Your task to perform on an android device: Search for a new eyeliner Image 0: 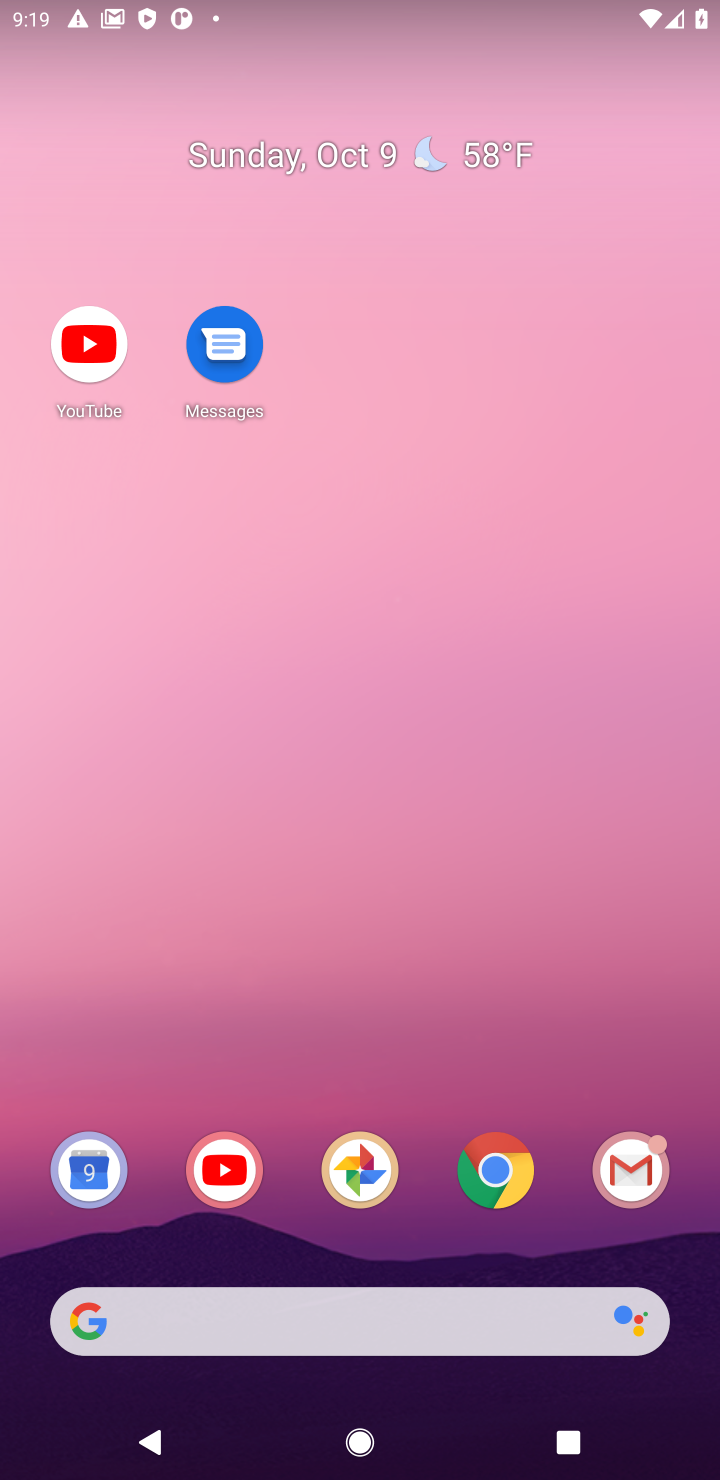
Step 0: drag from (337, 875) to (271, 264)
Your task to perform on an android device: Search for a new eyeliner Image 1: 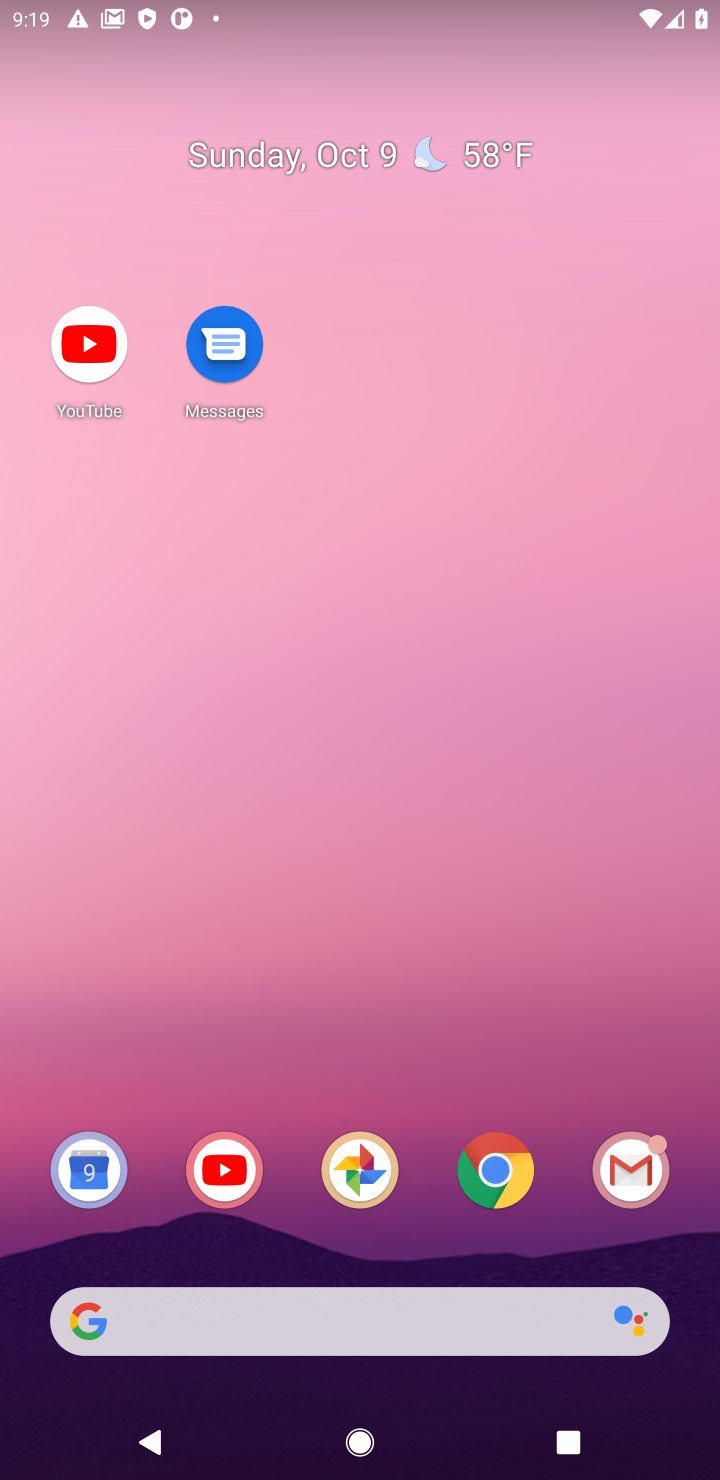
Step 1: drag from (371, 1221) to (233, 35)
Your task to perform on an android device: Search for a new eyeliner Image 2: 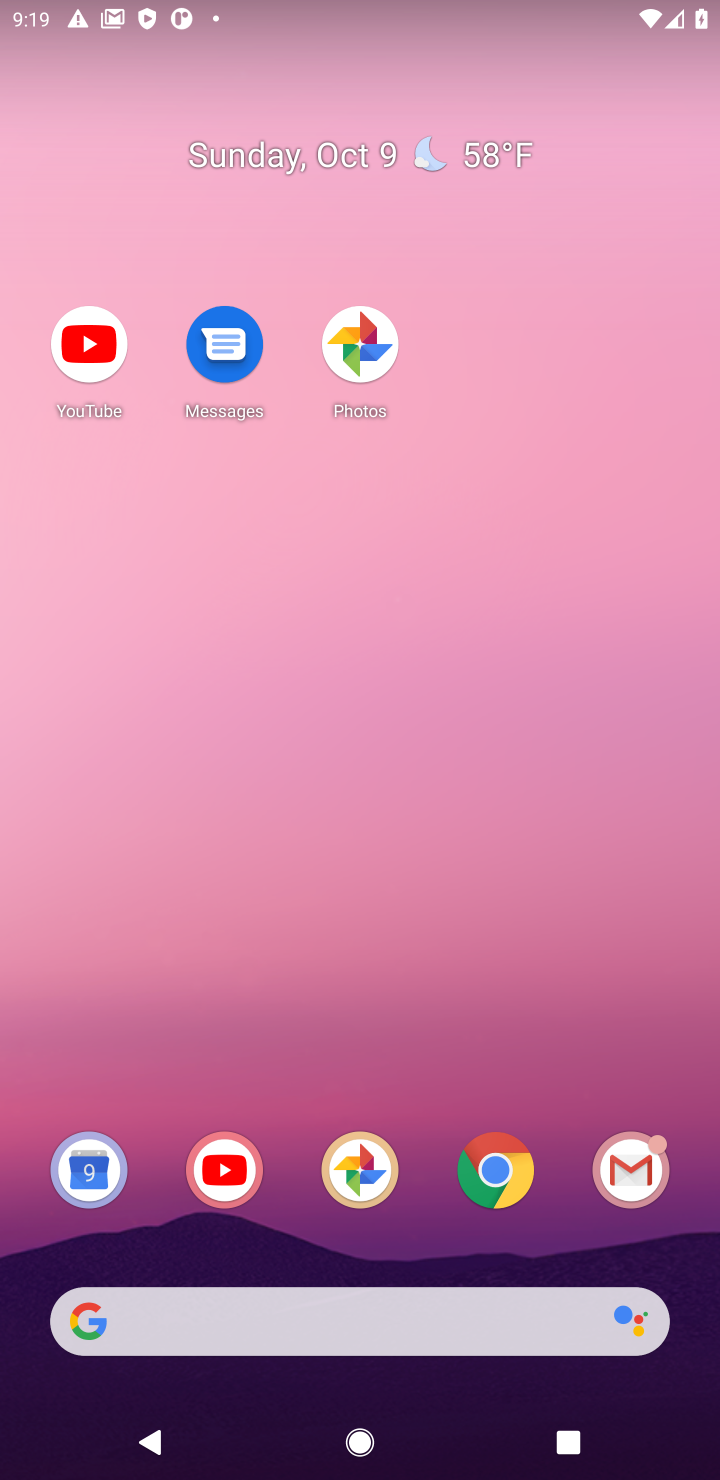
Step 2: click (390, 1243)
Your task to perform on an android device: Search for a new eyeliner Image 3: 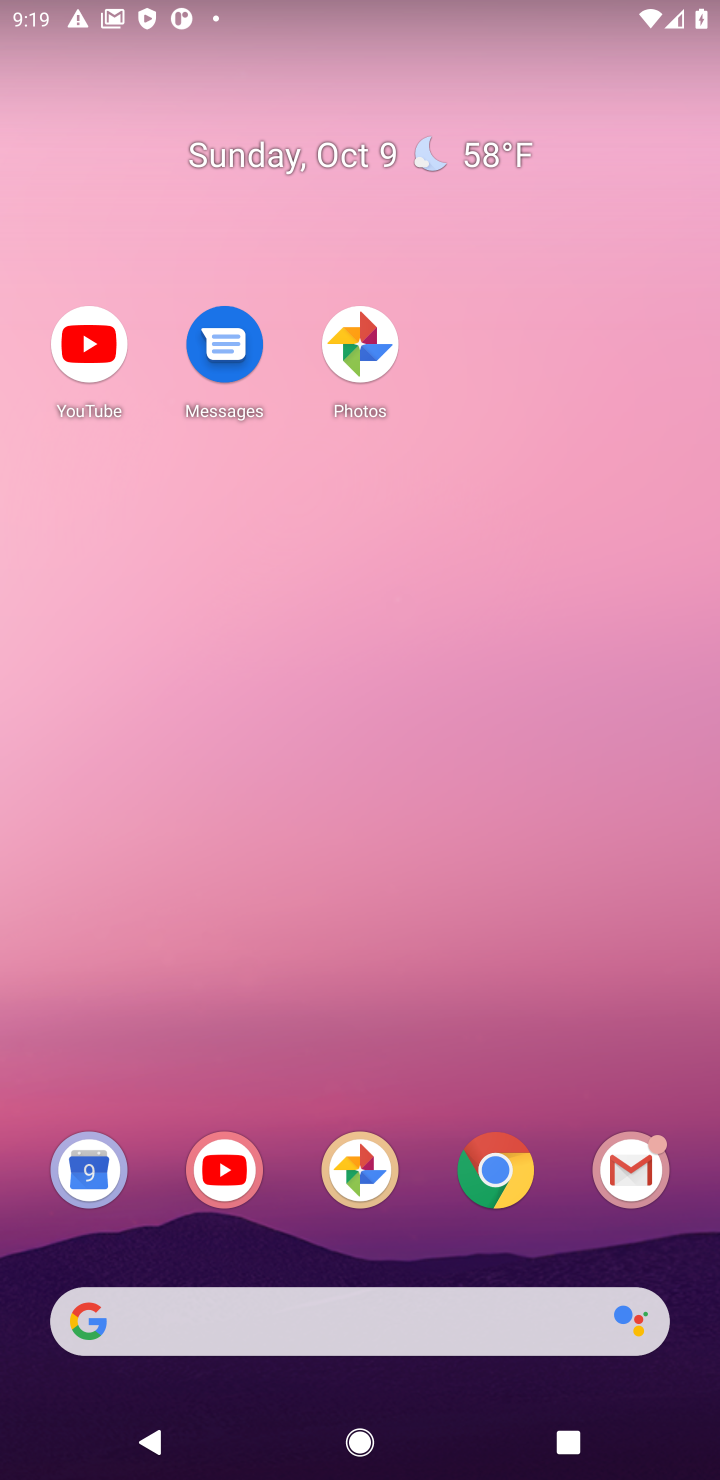
Step 3: drag from (388, 1218) to (230, 717)
Your task to perform on an android device: Search for a new eyeliner Image 4: 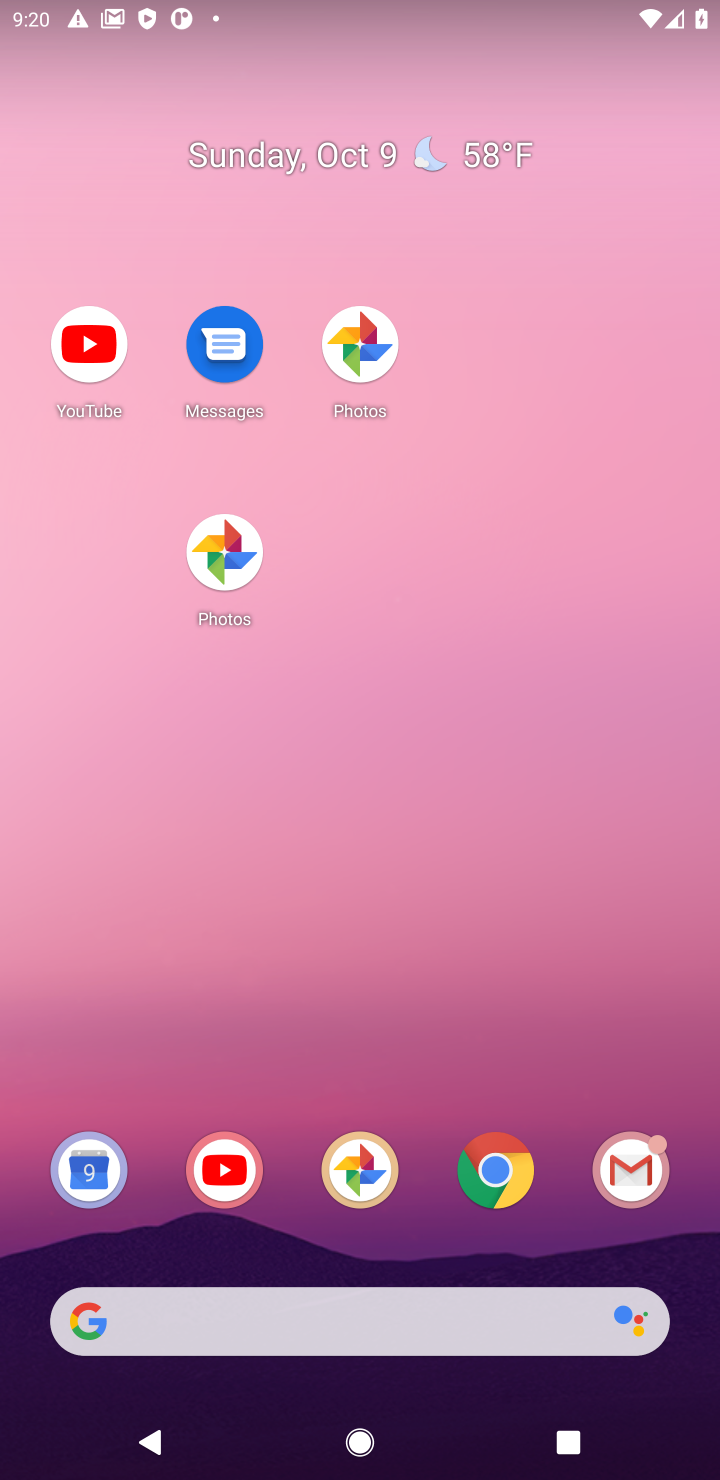
Step 4: click (230, 717)
Your task to perform on an android device: Search for a new eyeliner Image 5: 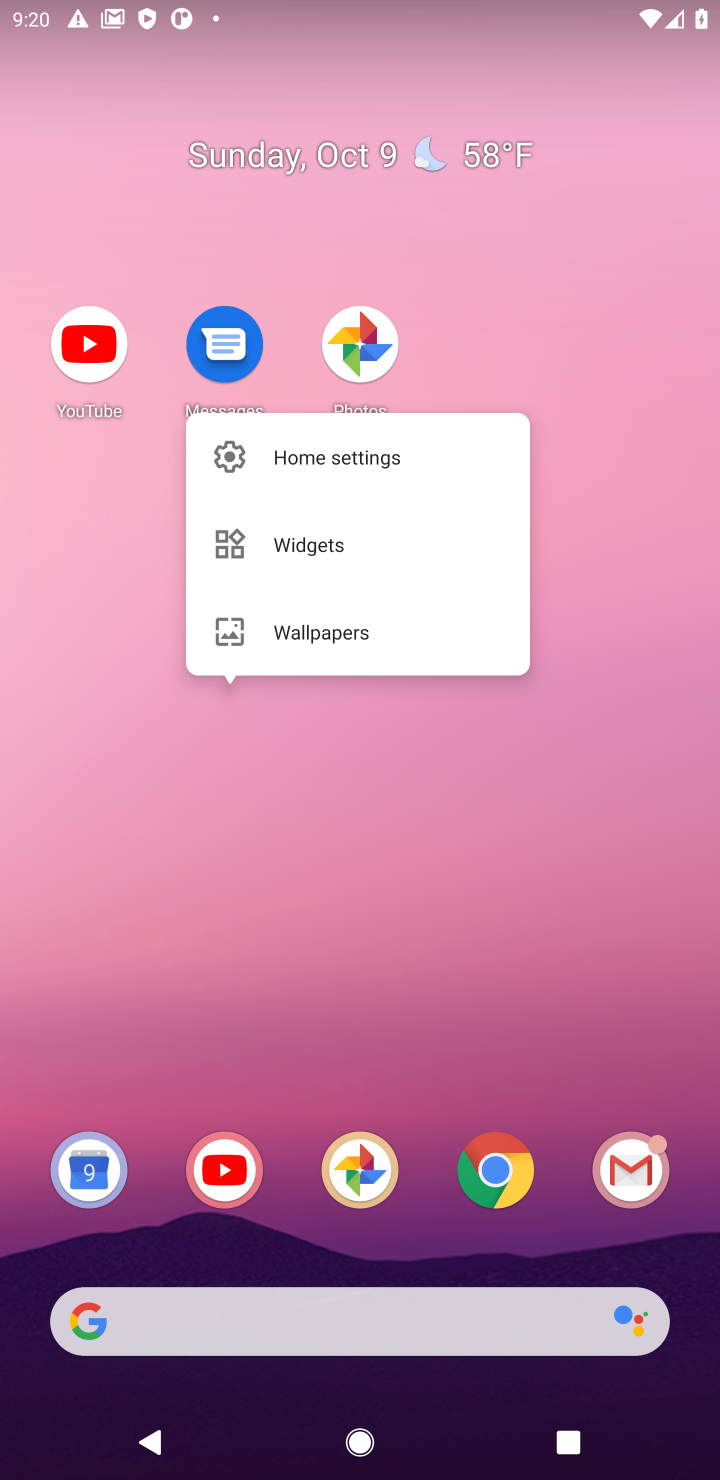
Step 5: click (274, 821)
Your task to perform on an android device: Search for a new eyeliner Image 6: 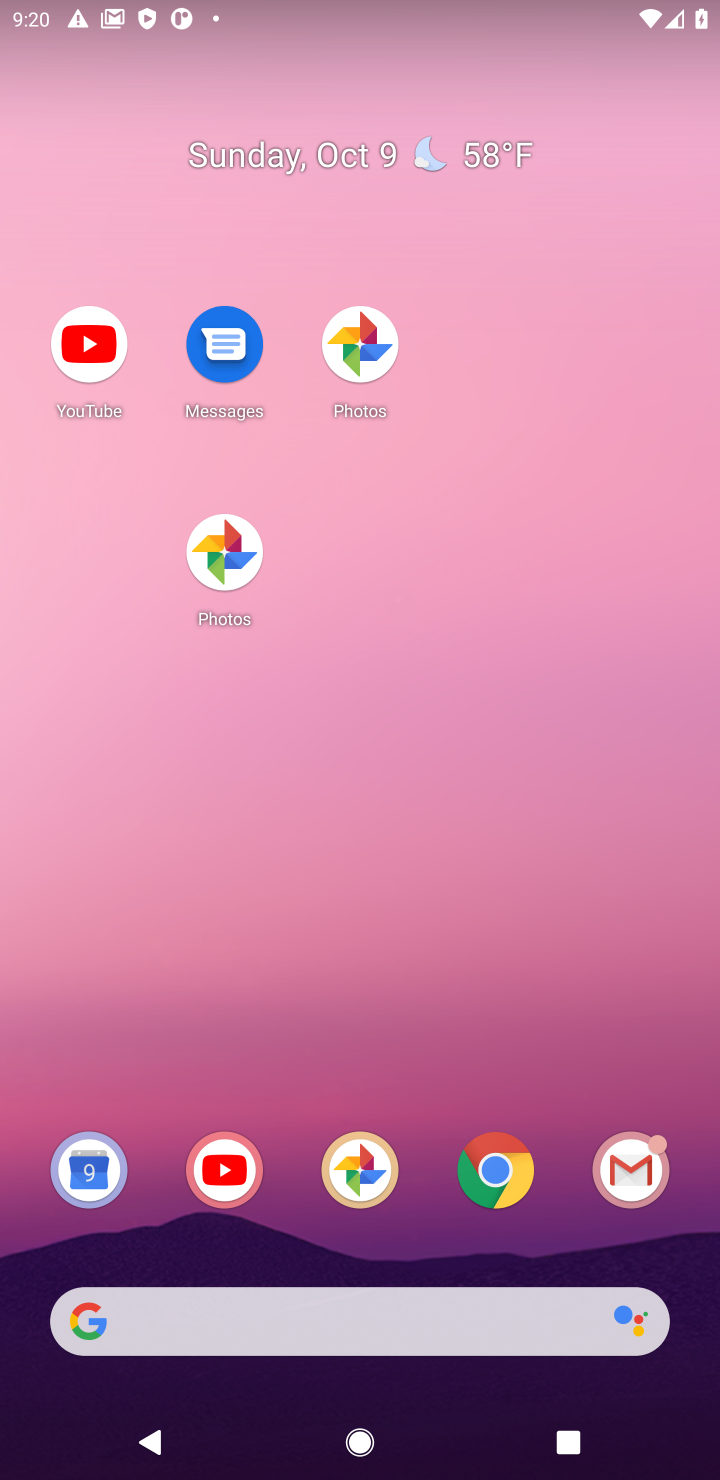
Step 6: click (401, 967)
Your task to perform on an android device: Search for a new eyeliner Image 7: 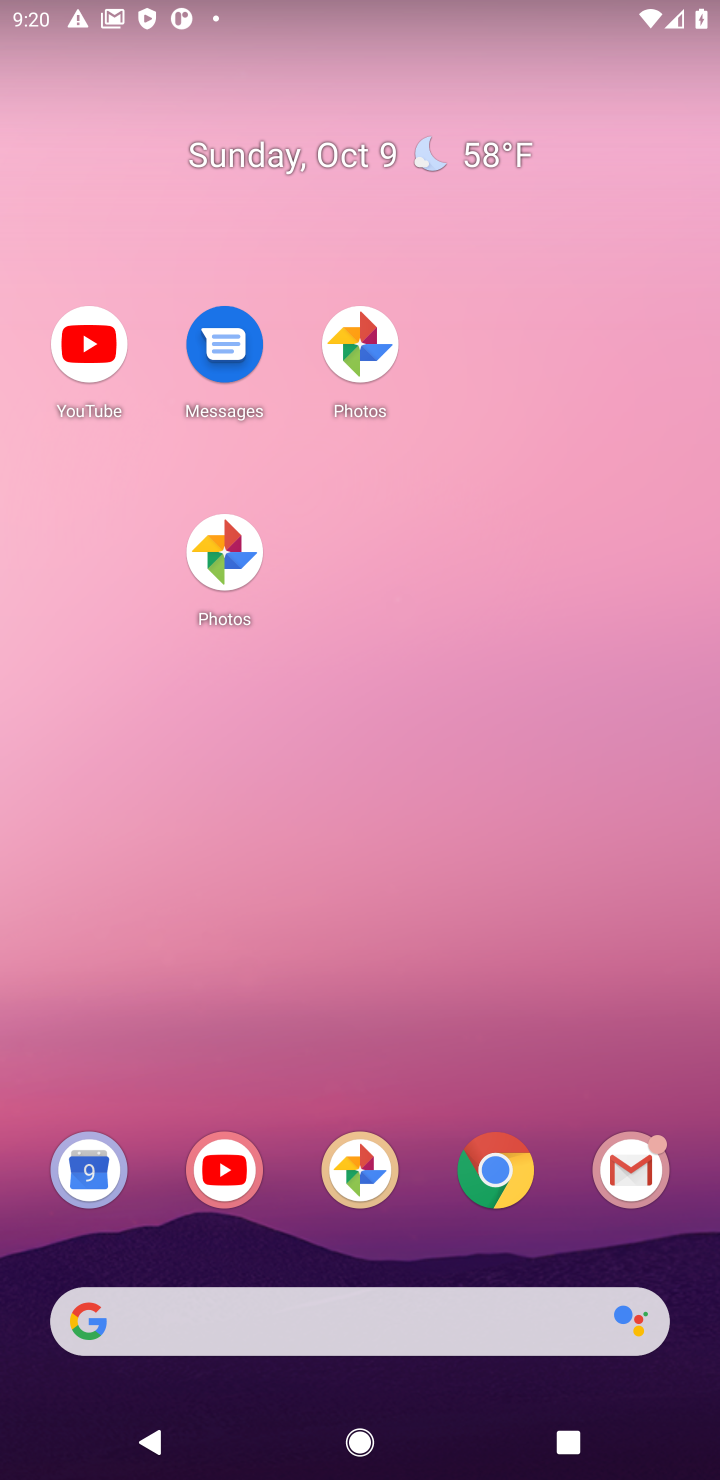
Step 7: click (312, 1319)
Your task to perform on an android device: Search for a new eyeliner Image 8: 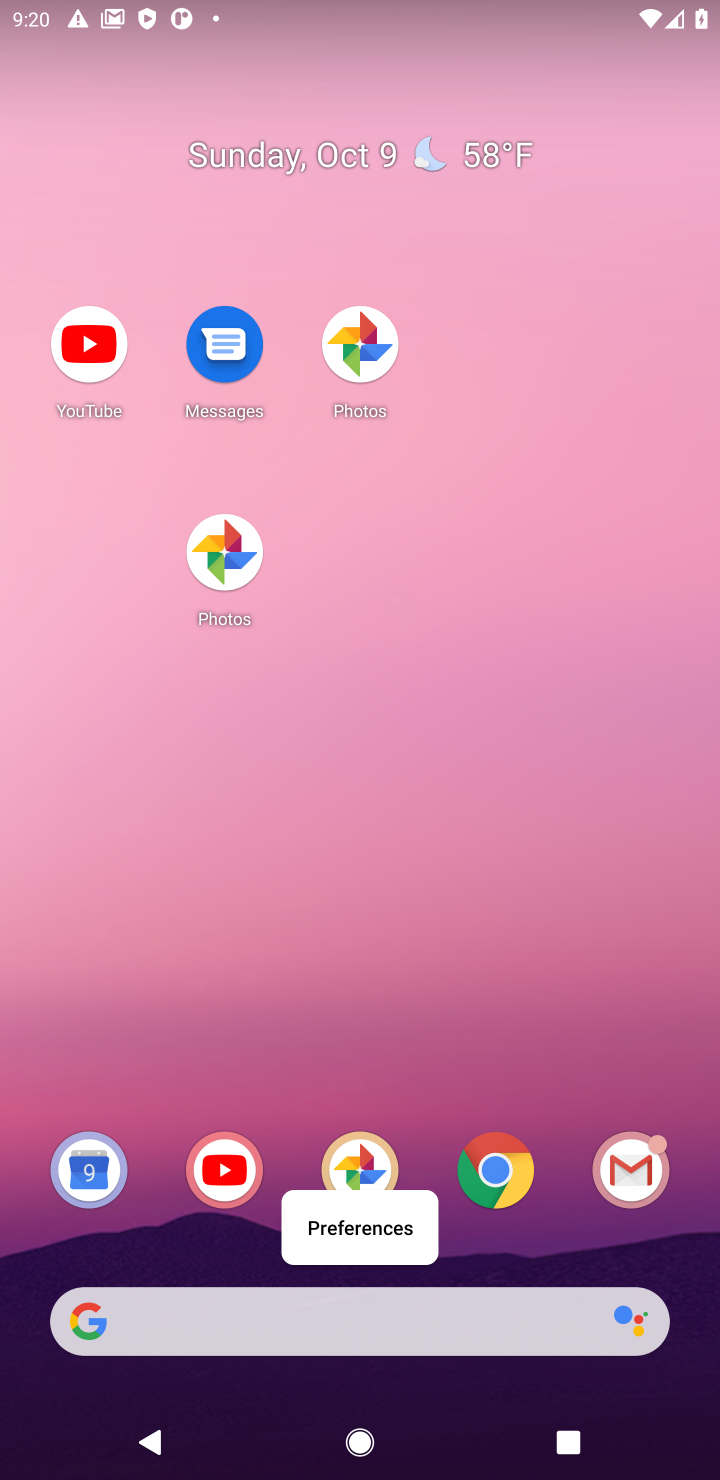
Step 8: click (312, 1319)
Your task to perform on an android device: Search for a new eyeliner Image 9: 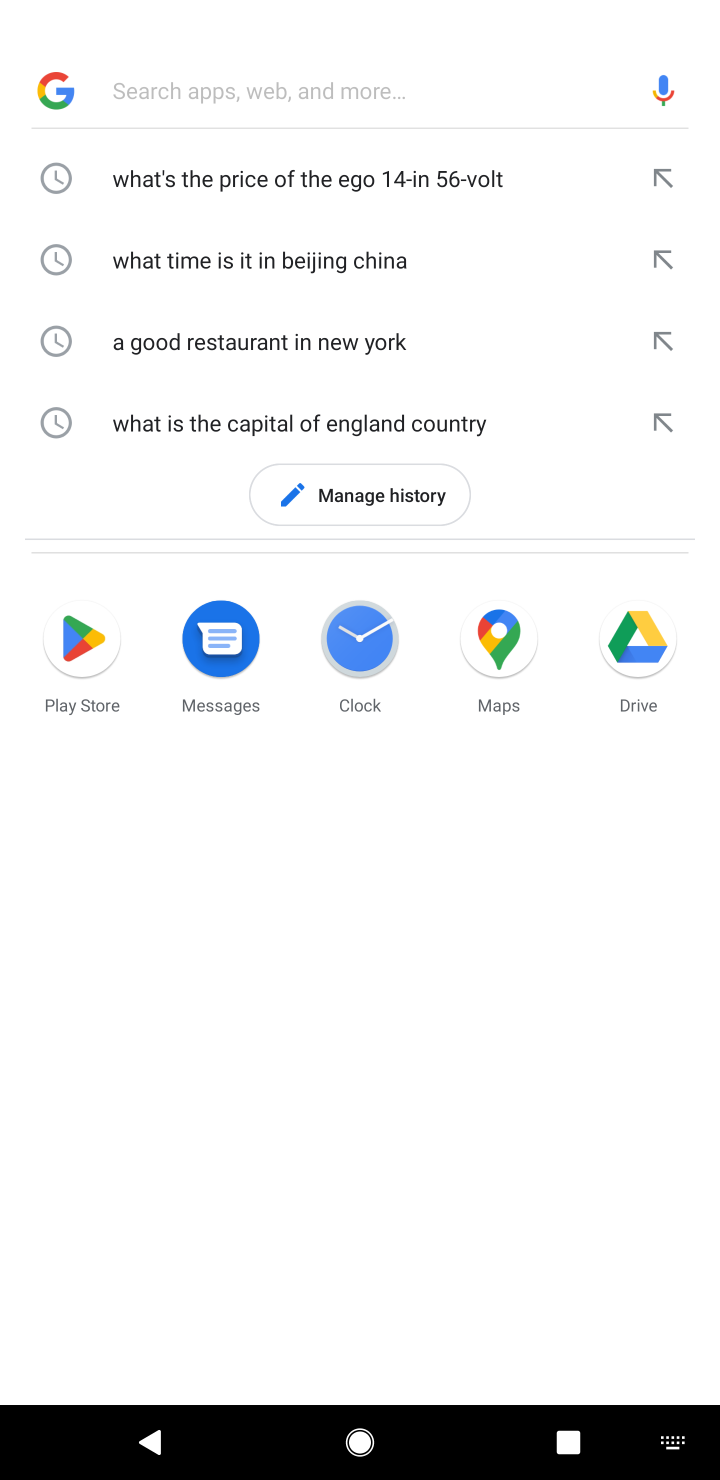
Step 9: type "Search for a new eyeliner"
Your task to perform on an android device: Search for a new eyeliner Image 10: 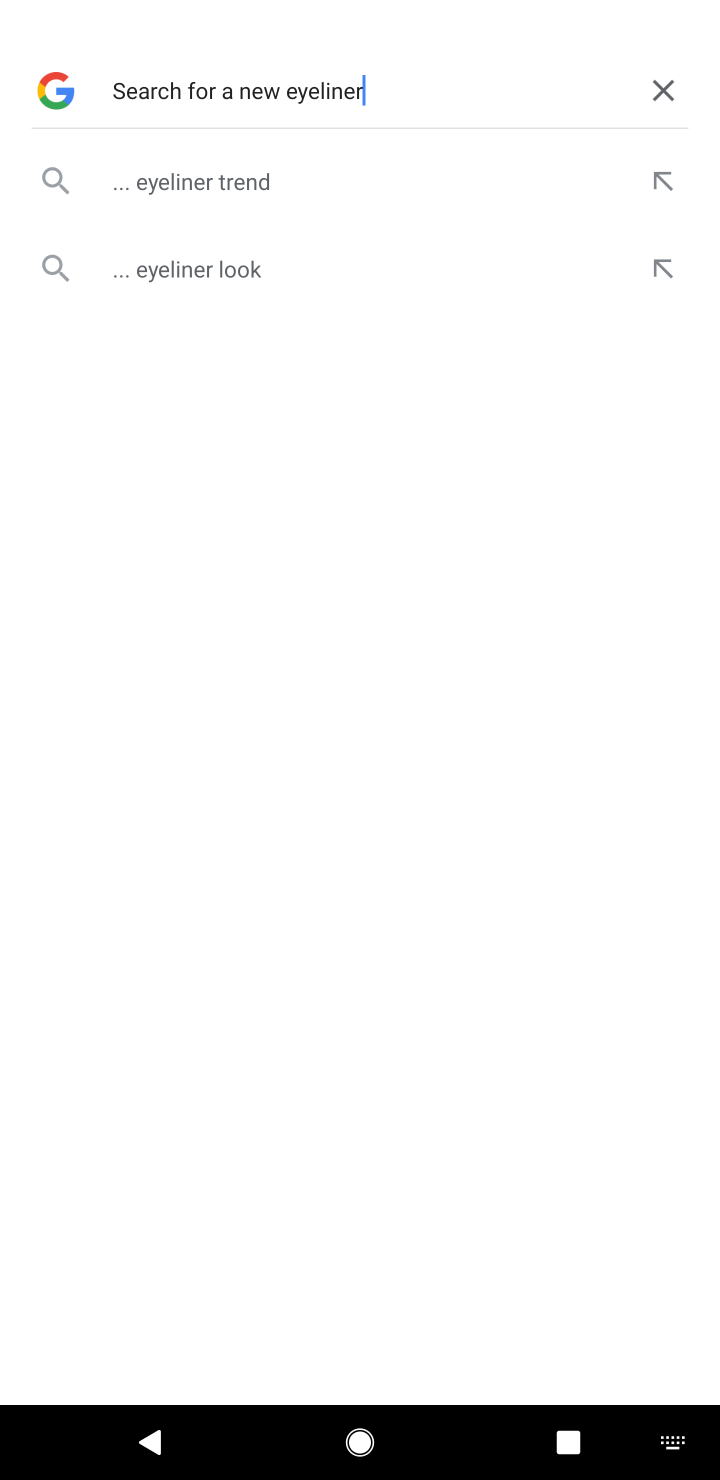
Step 10: click (212, 179)
Your task to perform on an android device: Search for a new eyeliner Image 11: 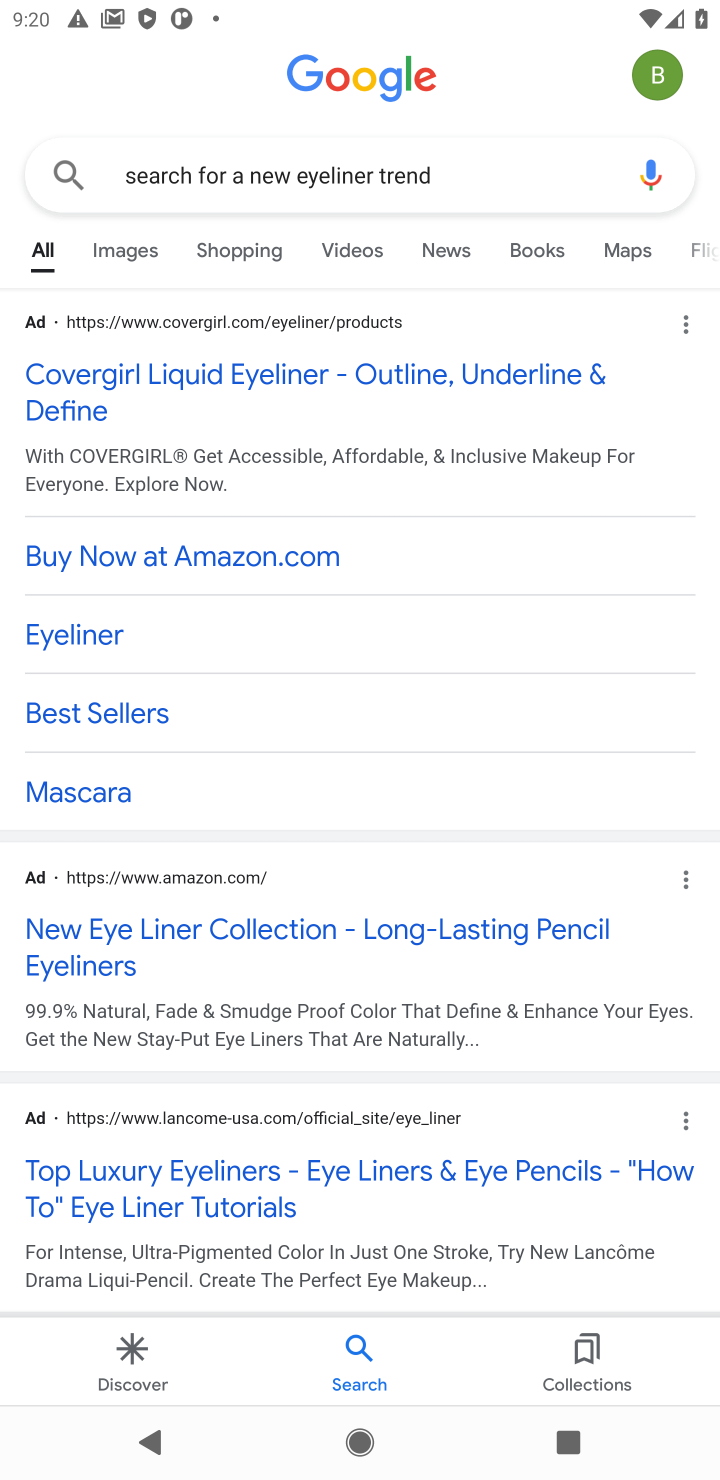
Step 11: click (215, 242)
Your task to perform on an android device: Search for a new eyeliner Image 12: 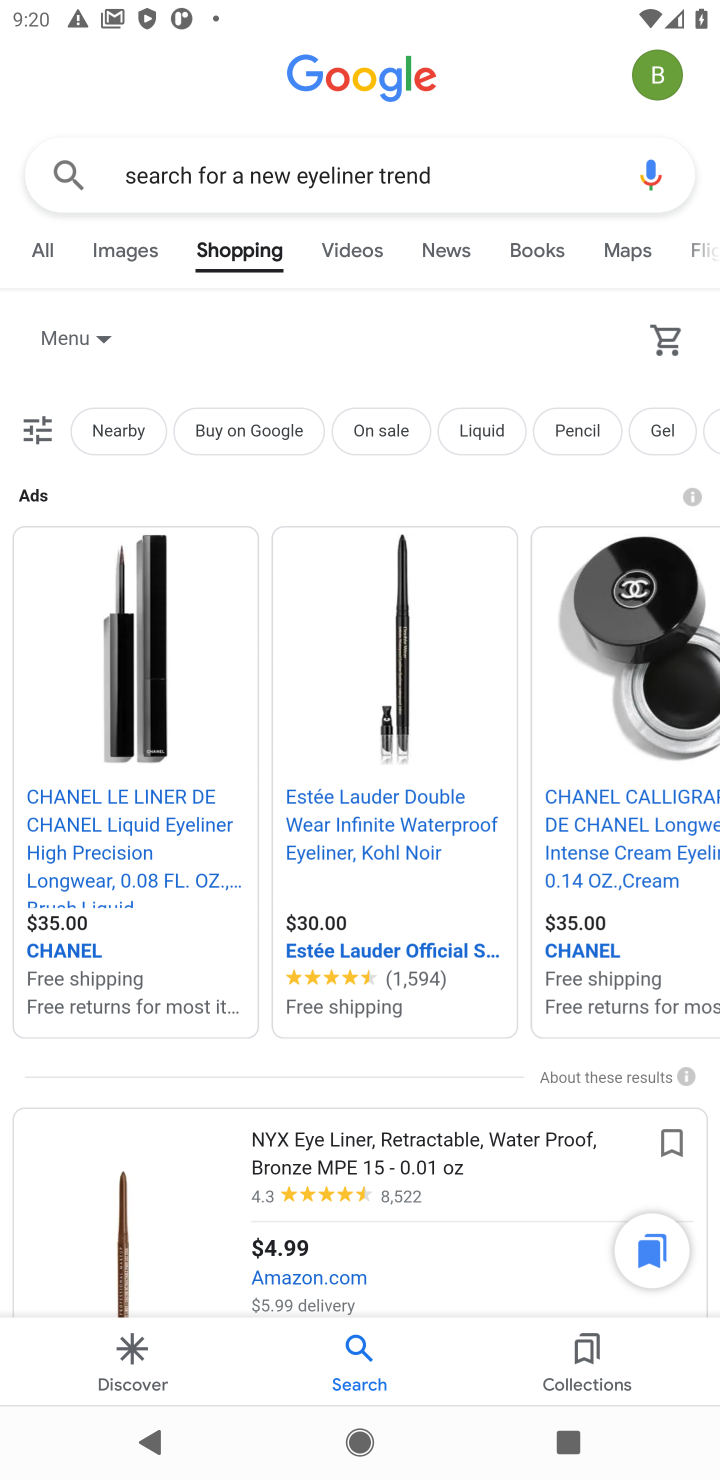
Step 12: task complete